Your task to perform on an android device: Toggle the flashlight Image 0: 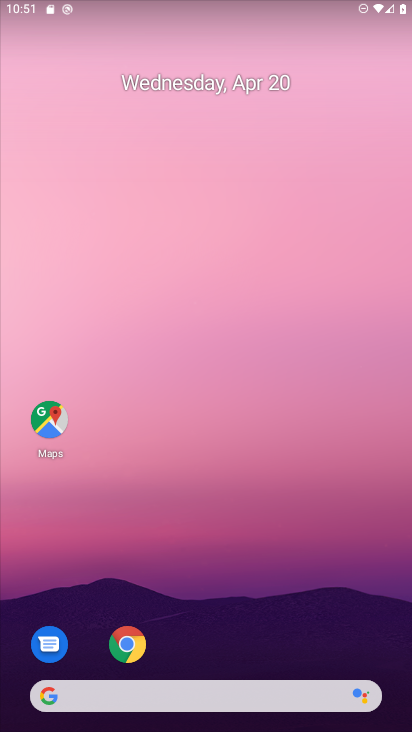
Step 0: drag from (294, 623) to (309, 66)
Your task to perform on an android device: Toggle the flashlight Image 1: 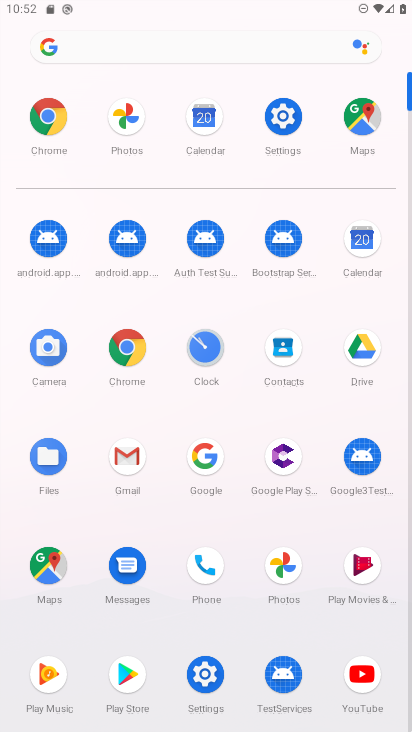
Step 1: click (279, 92)
Your task to perform on an android device: Toggle the flashlight Image 2: 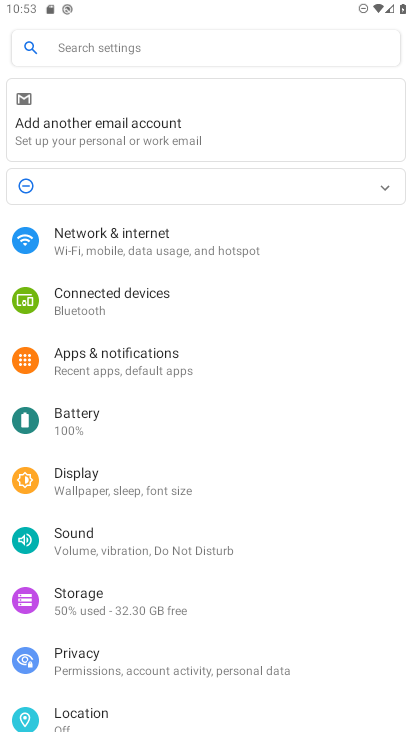
Step 2: task complete